Your task to perform on an android device: see tabs open on other devices in the chrome app Image 0: 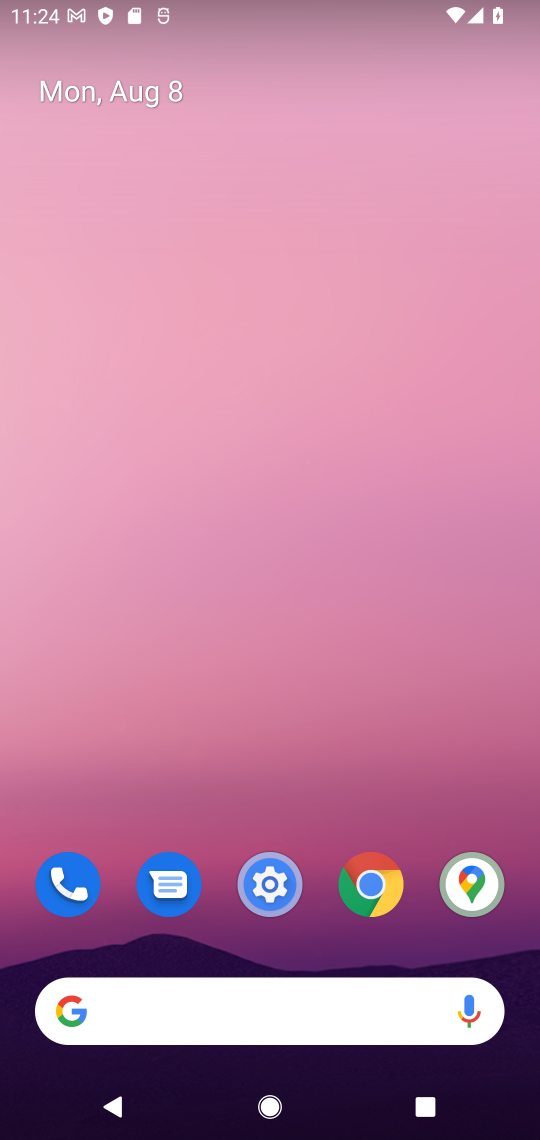
Step 0: click (375, 908)
Your task to perform on an android device: see tabs open on other devices in the chrome app Image 1: 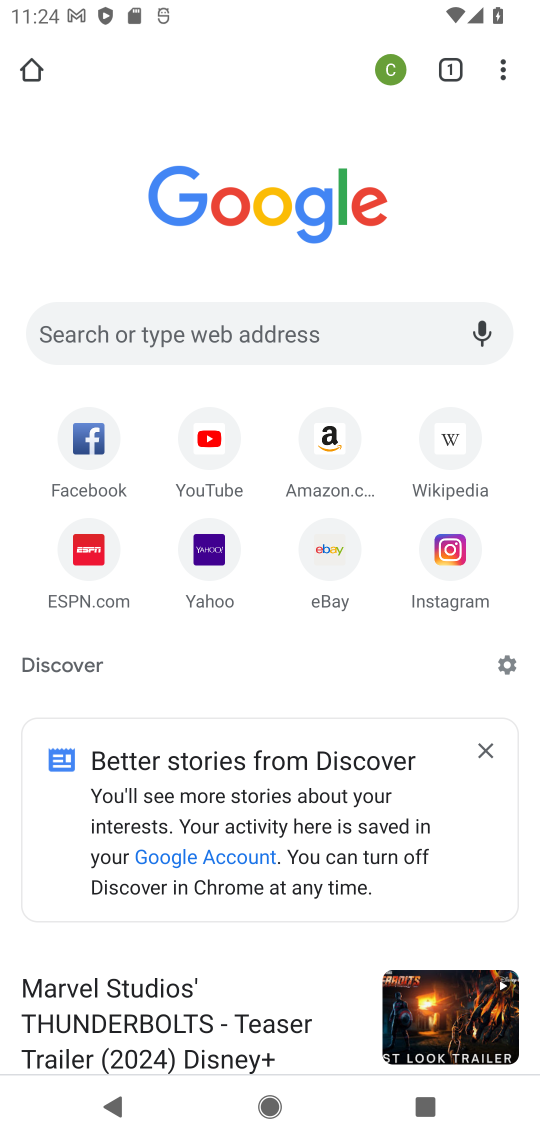
Step 1: click (505, 72)
Your task to perform on an android device: see tabs open on other devices in the chrome app Image 2: 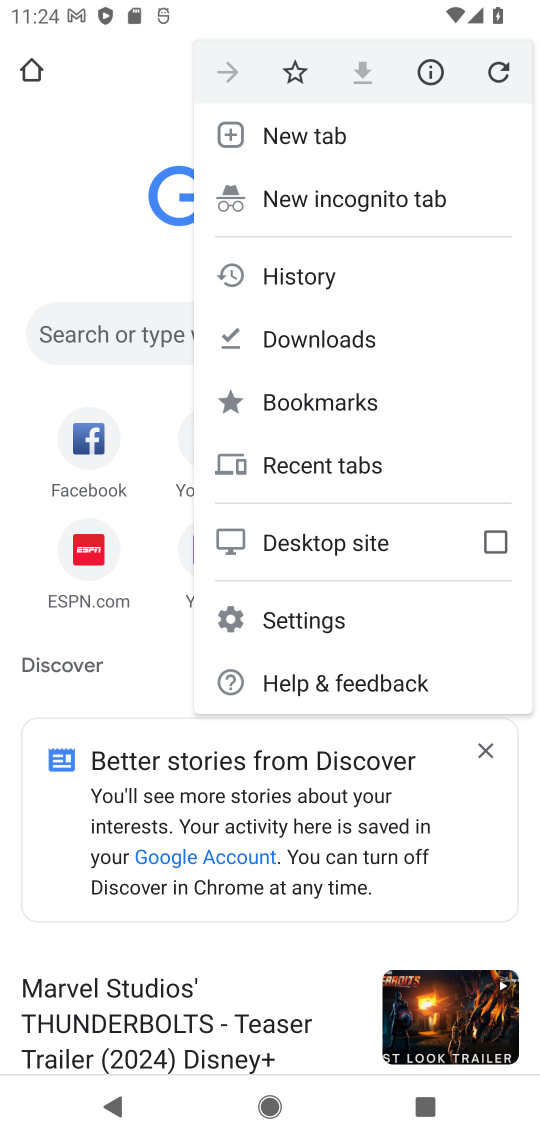
Step 2: click (295, 467)
Your task to perform on an android device: see tabs open on other devices in the chrome app Image 3: 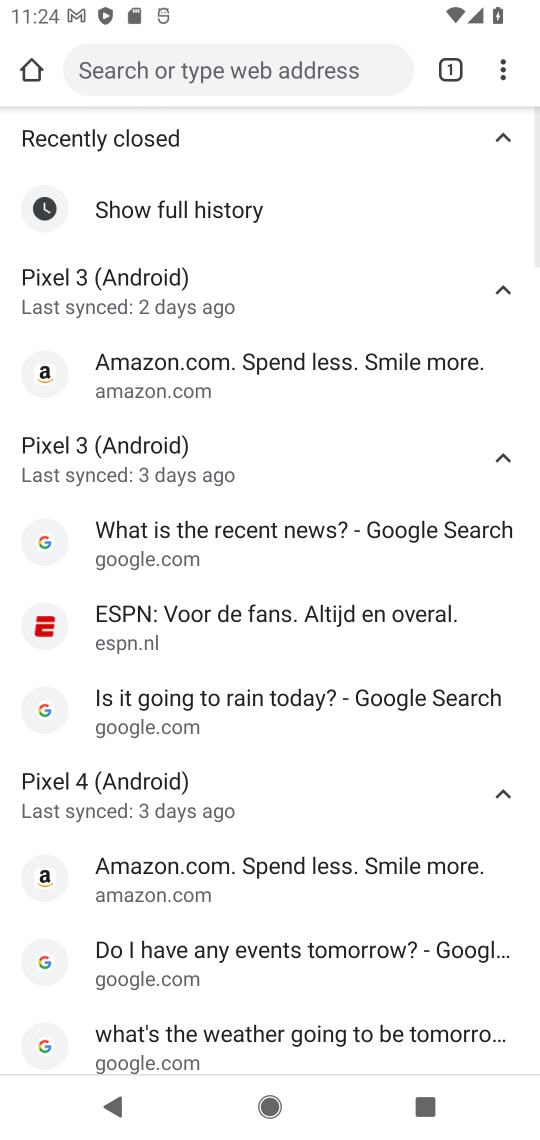
Step 3: task complete